Your task to perform on an android device: turn off translation in the chrome app Image 0: 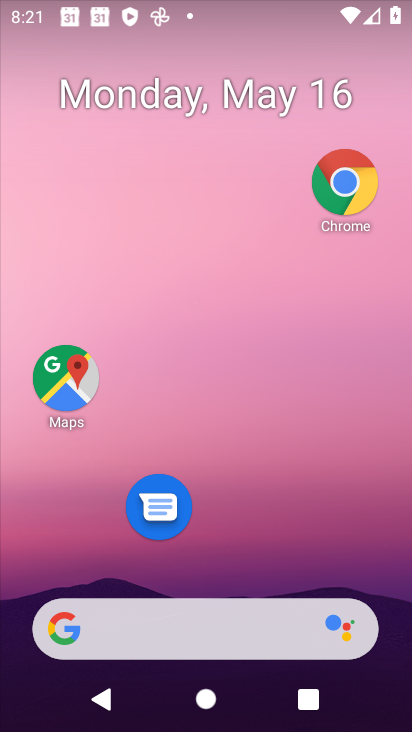
Step 0: click (349, 182)
Your task to perform on an android device: turn off translation in the chrome app Image 1: 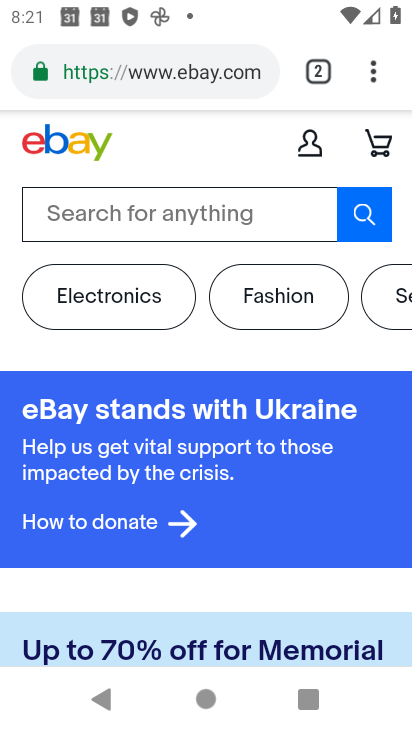
Step 1: click (339, 183)
Your task to perform on an android device: turn off translation in the chrome app Image 2: 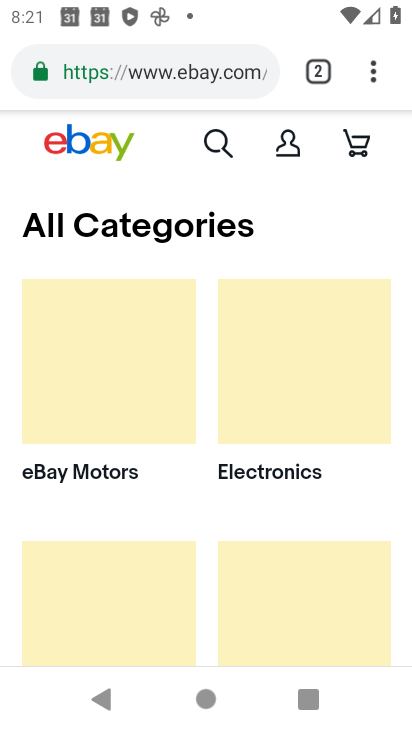
Step 2: click (351, 180)
Your task to perform on an android device: turn off translation in the chrome app Image 3: 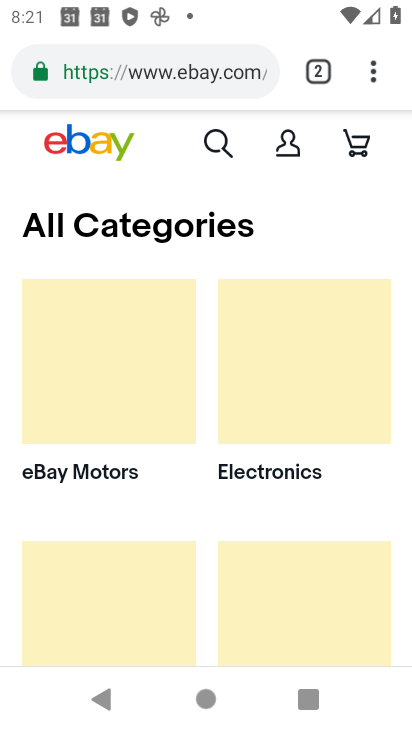
Step 3: click (376, 76)
Your task to perform on an android device: turn off translation in the chrome app Image 4: 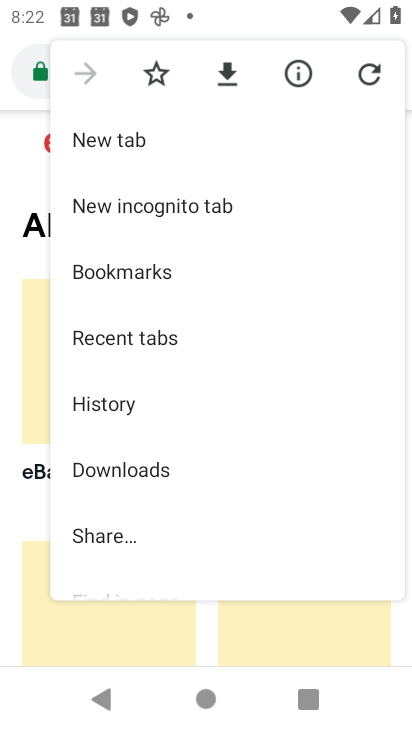
Step 4: press home button
Your task to perform on an android device: turn off translation in the chrome app Image 5: 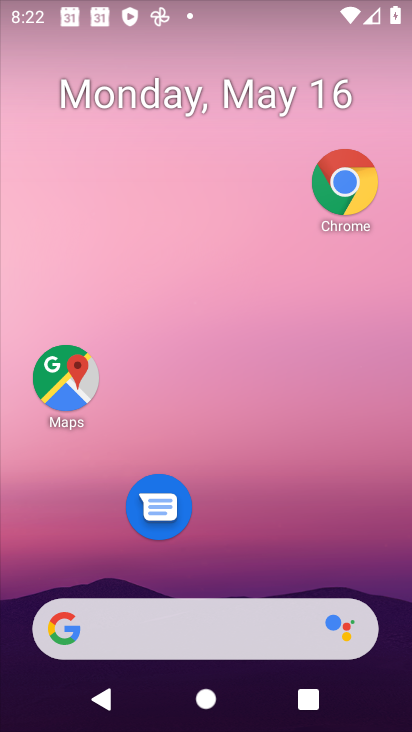
Step 5: click (341, 182)
Your task to perform on an android device: turn off translation in the chrome app Image 6: 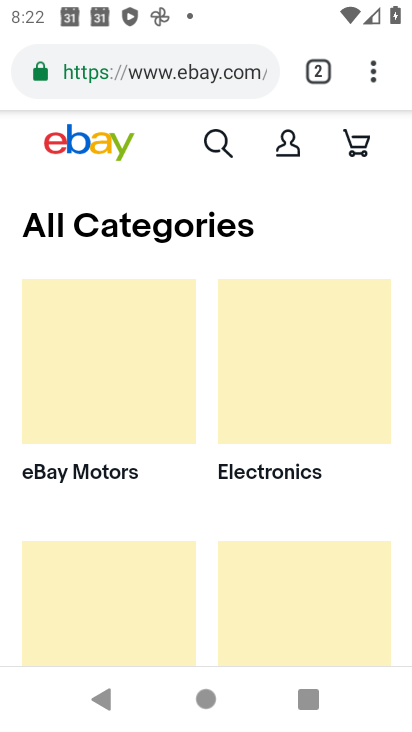
Step 6: drag from (374, 81) to (125, 501)
Your task to perform on an android device: turn off translation in the chrome app Image 7: 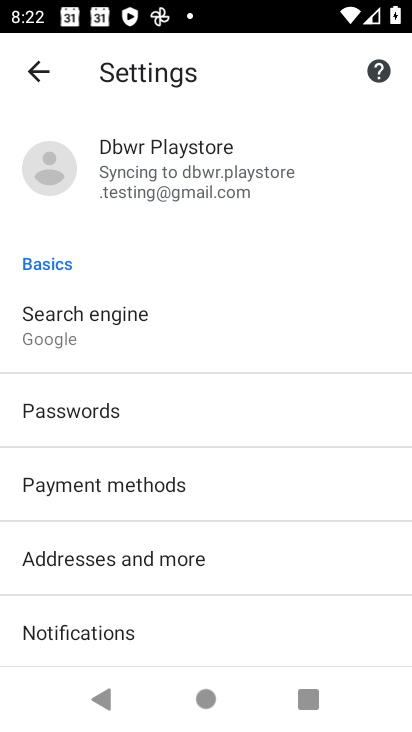
Step 7: drag from (226, 624) to (232, 176)
Your task to perform on an android device: turn off translation in the chrome app Image 8: 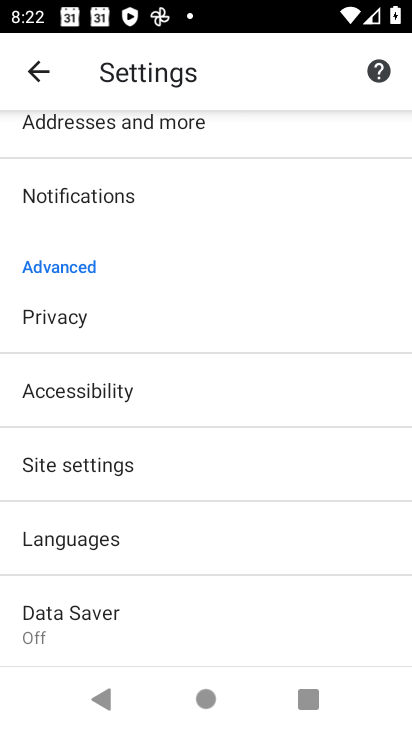
Step 8: click (69, 459)
Your task to perform on an android device: turn off translation in the chrome app Image 9: 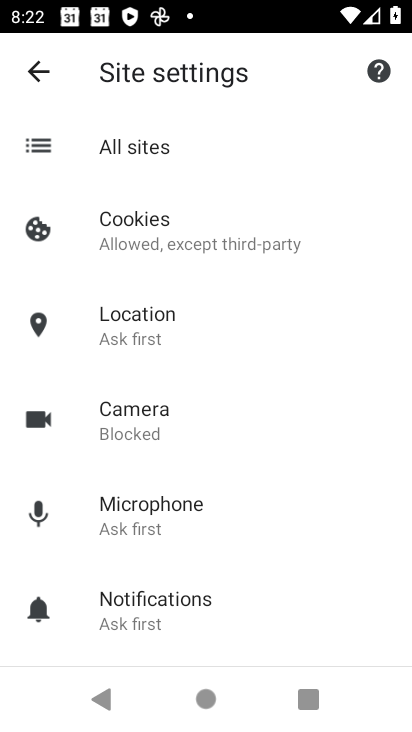
Step 9: drag from (284, 584) to (293, 123)
Your task to perform on an android device: turn off translation in the chrome app Image 10: 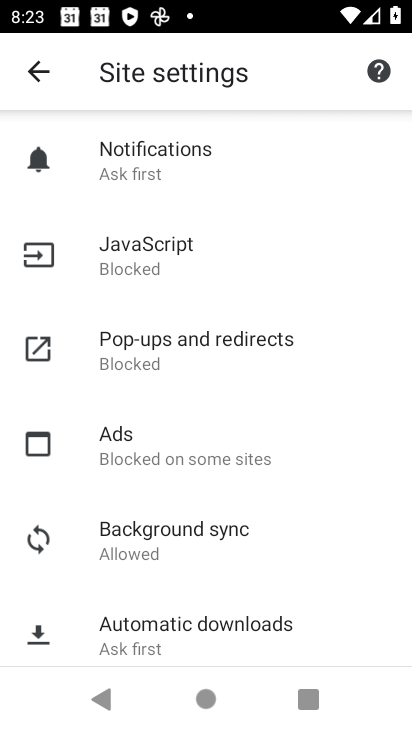
Step 10: click (143, 255)
Your task to perform on an android device: turn off translation in the chrome app Image 11: 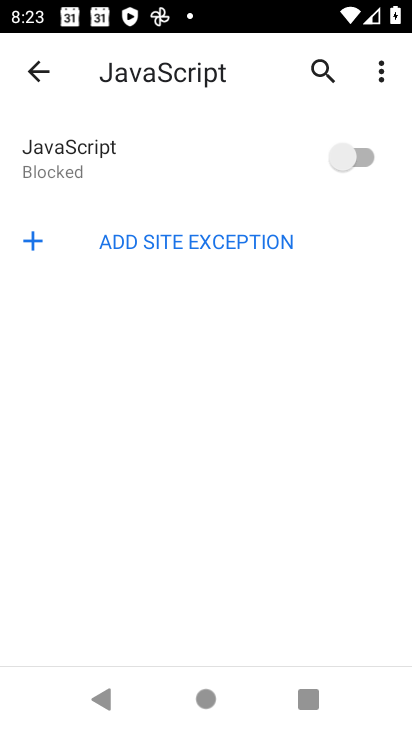
Step 11: task complete